Your task to perform on an android device: Open Google Maps and go to "Timeline" Image 0: 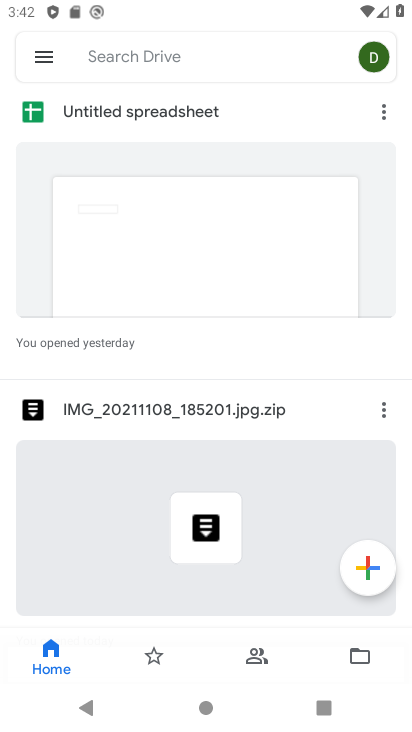
Step 0: press home button
Your task to perform on an android device: Open Google Maps and go to "Timeline" Image 1: 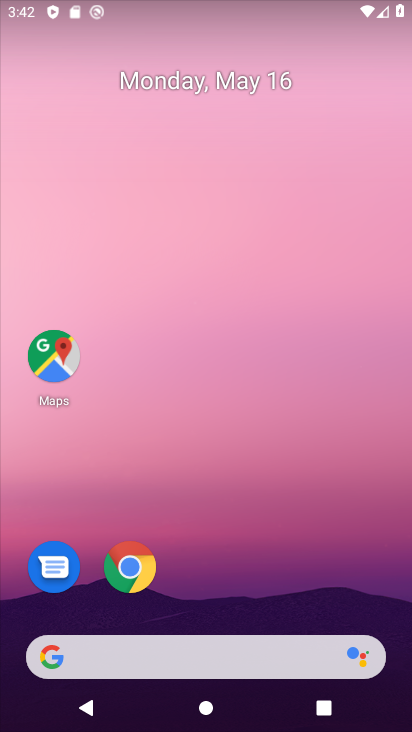
Step 1: drag from (262, 672) to (357, 2)
Your task to perform on an android device: Open Google Maps and go to "Timeline" Image 2: 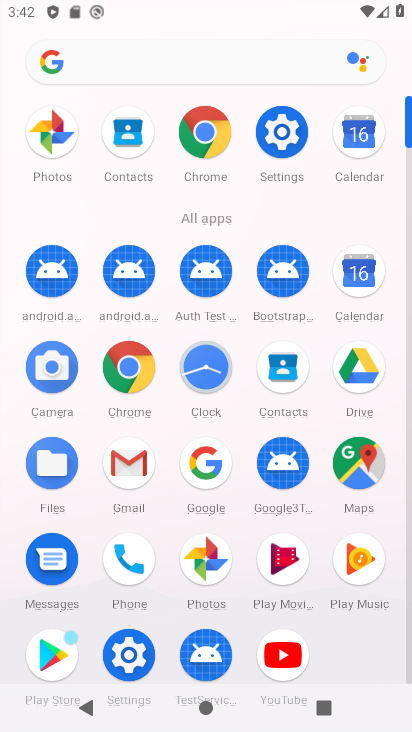
Step 2: click (363, 469)
Your task to perform on an android device: Open Google Maps and go to "Timeline" Image 3: 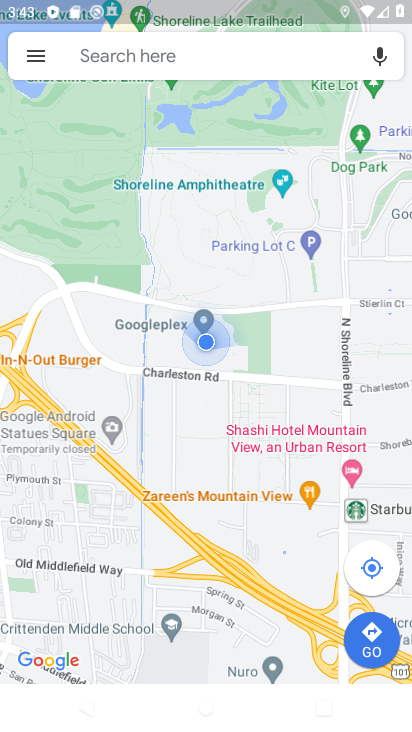
Step 3: click (37, 55)
Your task to perform on an android device: Open Google Maps and go to "Timeline" Image 4: 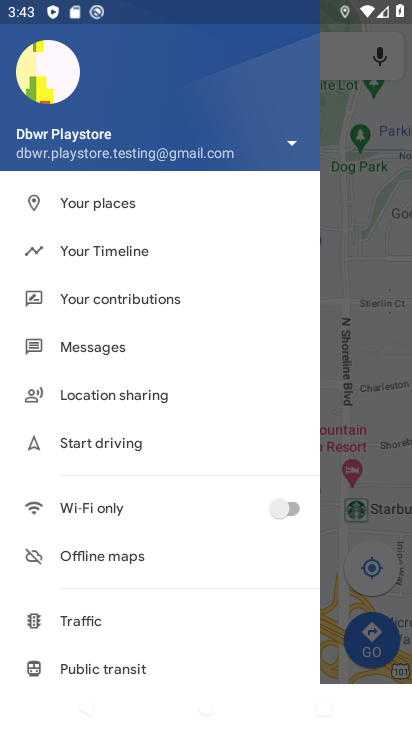
Step 4: click (130, 247)
Your task to perform on an android device: Open Google Maps and go to "Timeline" Image 5: 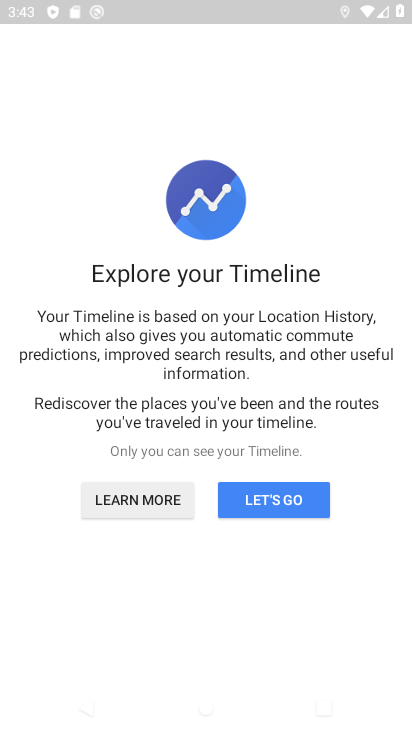
Step 5: task complete